Your task to perform on an android device: change your default location settings in chrome Image 0: 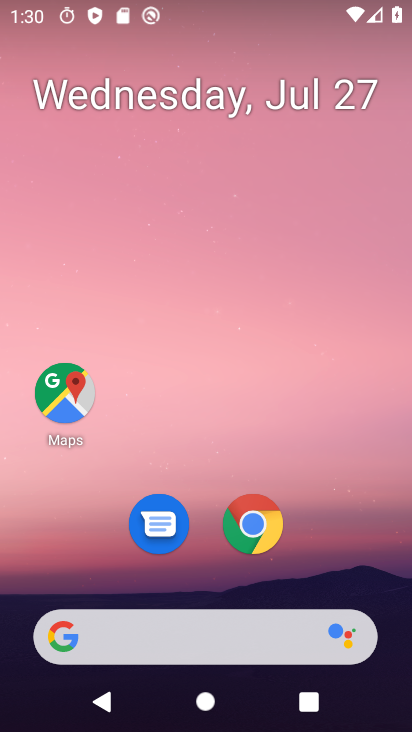
Step 0: click (257, 525)
Your task to perform on an android device: change your default location settings in chrome Image 1: 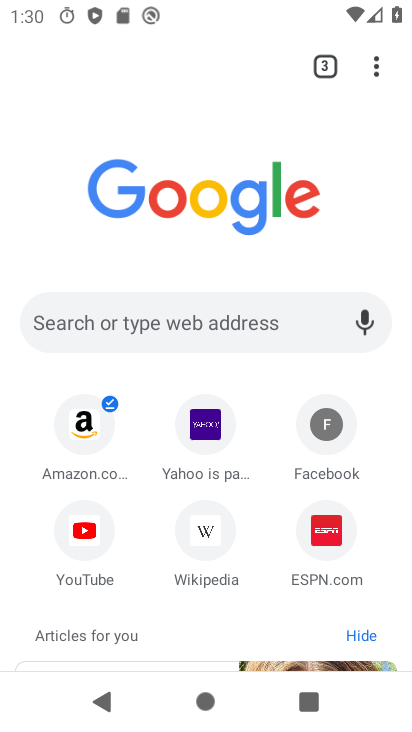
Step 1: click (374, 67)
Your task to perform on an android device: change your default location settings in chrome Image 2: 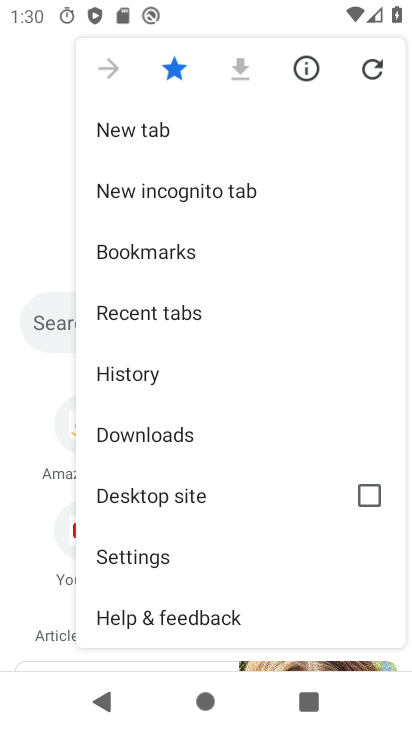
Step 2: click (156, 552)
Your task to perform on an android device: change your default location settings in chrome Image 3: 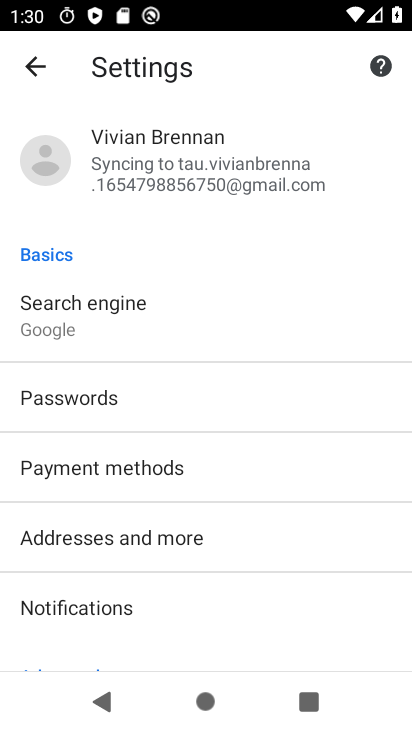
Step 3: drag from (253, 535) to (240, 201)
Your task to perform on an android device: change your default location settings in chrome Image 4: 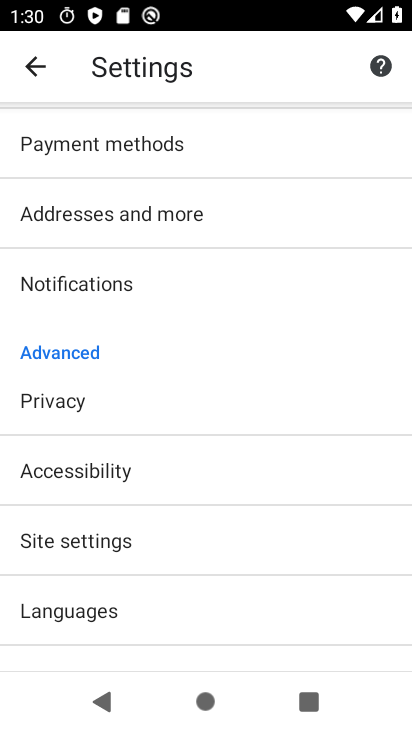
Step 4: click (108, 529)
Your task to perform on an android device: change your default location settings in chrome Image 5: 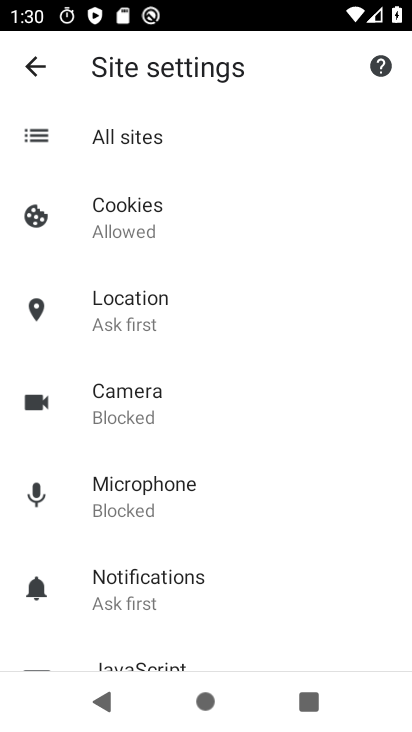
Step 5: click (139, 300)
Your task to perform on an android device: change your default location settings in chrome Image 6: 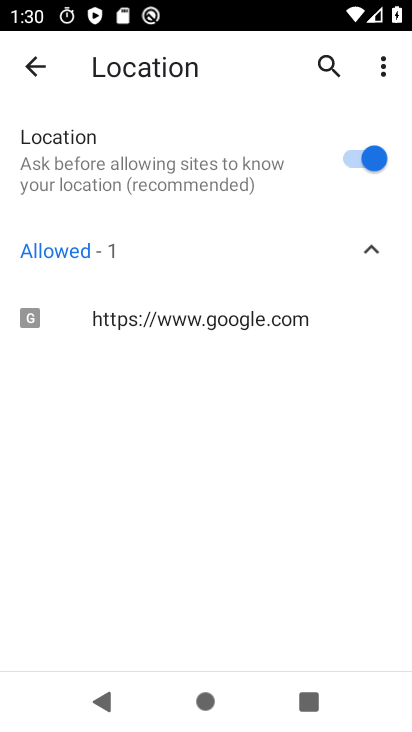
Step 6: click (359, 154)
Your task to perform on an android device: change your default location settings in chrome Image 7: 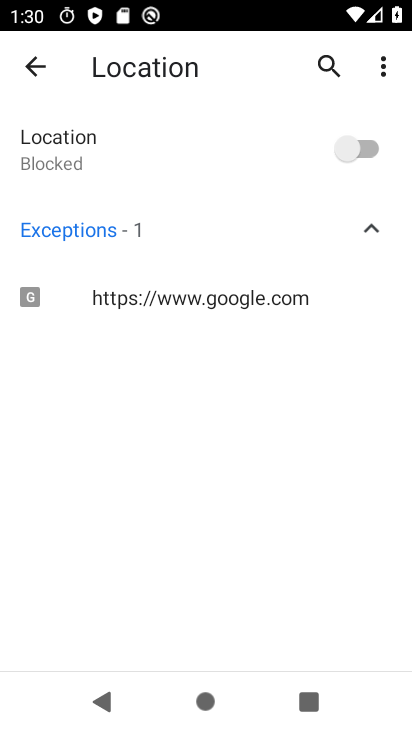
Step 7: task complete